Your task to perform on an android device: What is the news today? Image 0: 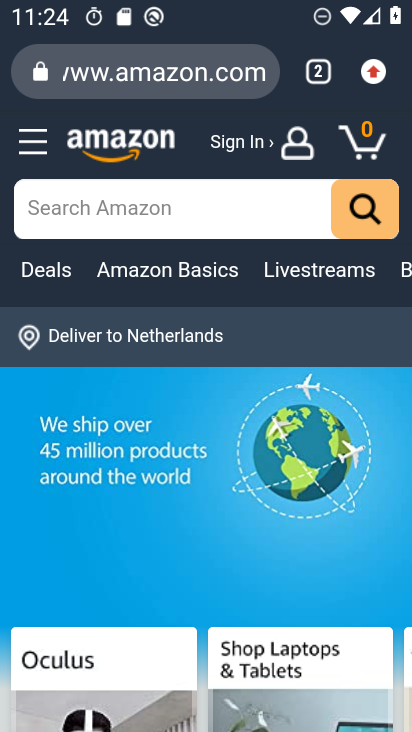
Step 0: press home button
Your task to perform on an android device: What is the news today? Image 1: 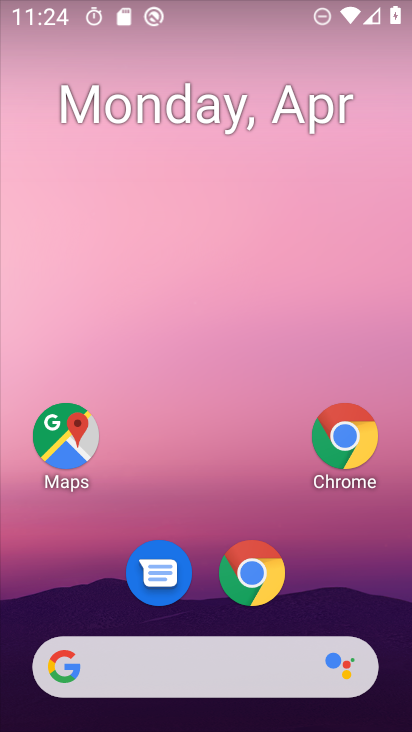
Step 1: click (261, 565)
Your task to perform on an android device: What is the news today? Image 2: 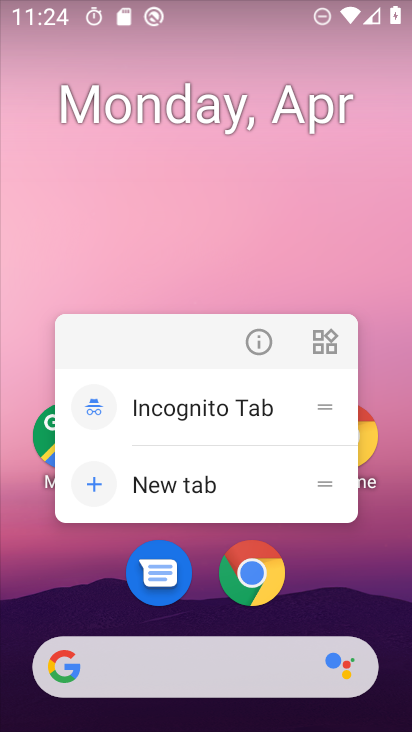
Step 2: click (261, 565)
Your task to perform on an android device: What is the news today? Image 3: 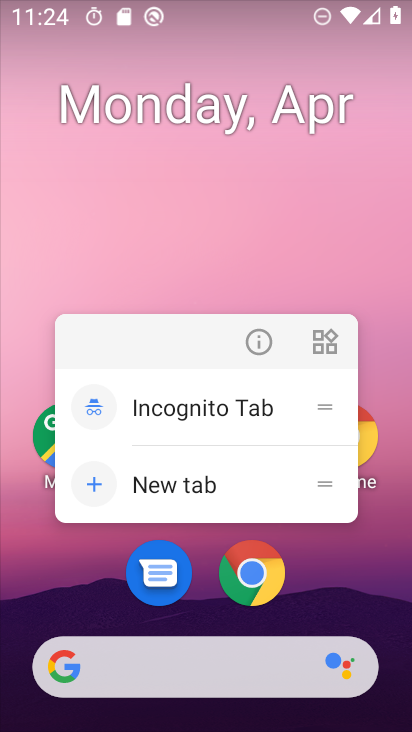
Step 3: click (262, 565)
Your task to perform on an android device: What is the news today? Image 4: 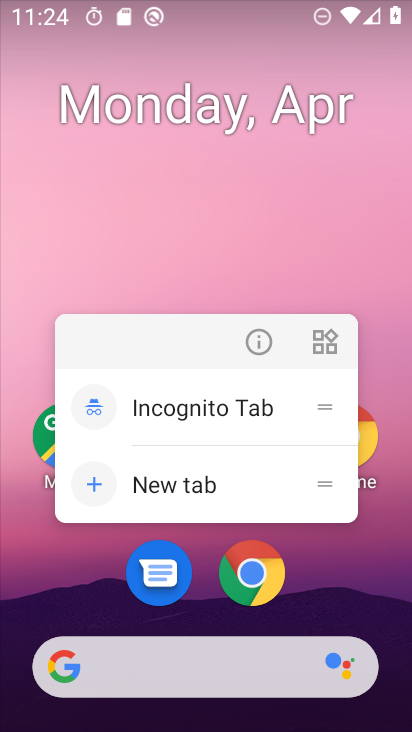
Step 4: click (263, 565)
Your task to perform on an android device: What is the news today? Image 5: 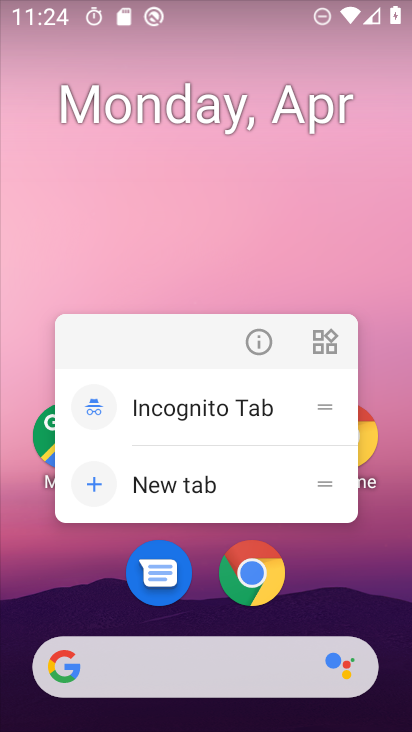
Step 5: click (264, 566)
Your task to perform on an android device: What is the news today? Image 6: 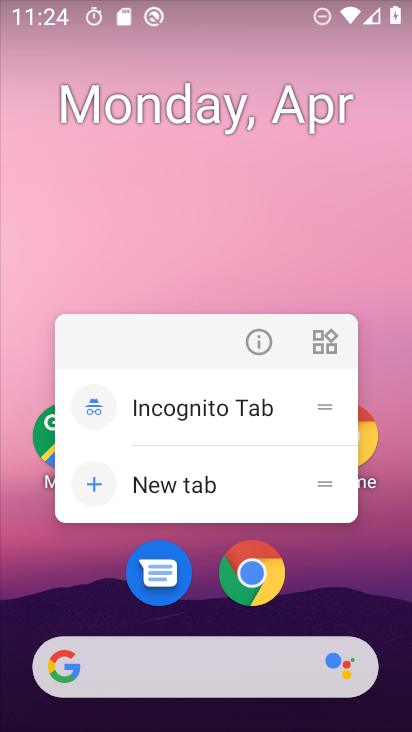
Step 6: click (264, 566)
Your task to perform on an android device: What is the news today? Image 7: 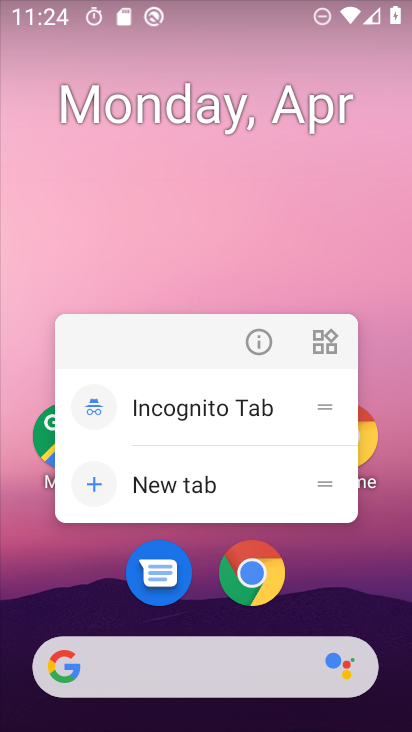
Step 7: click (264, 566)
Your task to perform on an android device: What is the news today? Image 8: 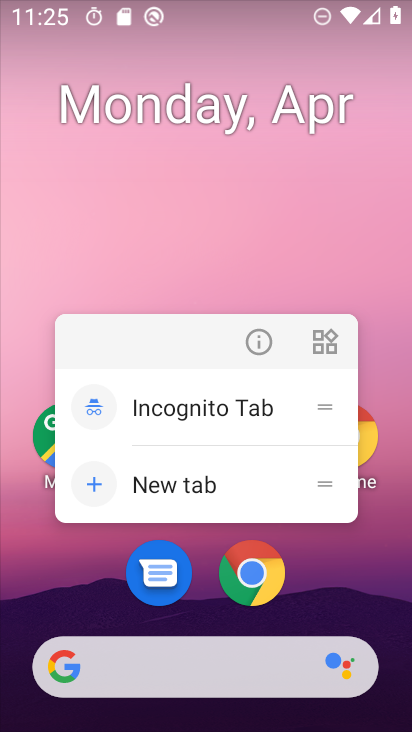
Step 8: click (274, 563)
Your task to perform on an android device: What is the news today? Image 9: 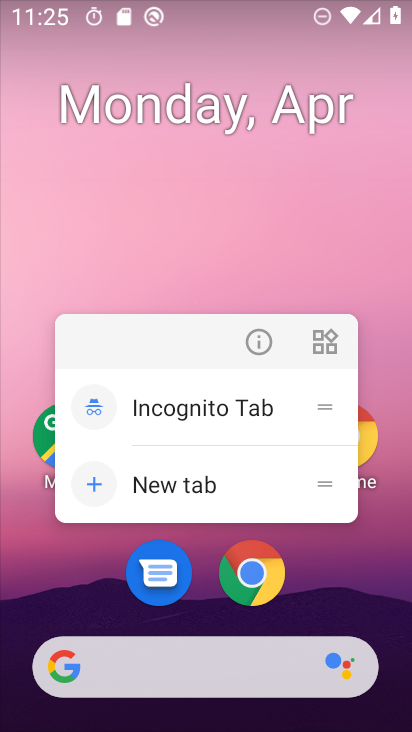
Step 9: click (248, 554)
Your task to perform on an android device: What is the news today? Image 10: 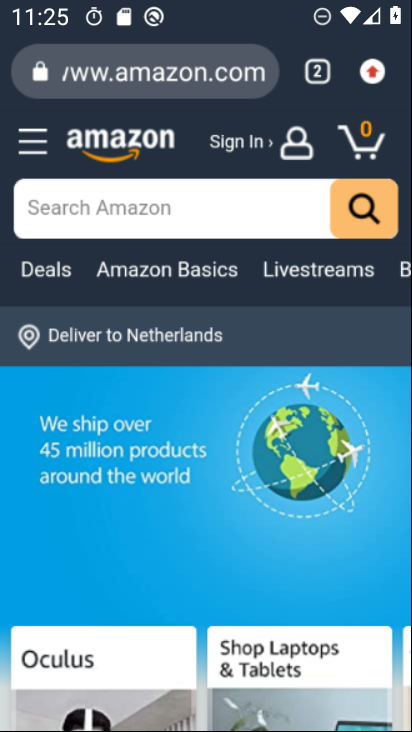
Step 10: click (248, 554)
Your task to perform on an android device: What is the news today? Image 11: 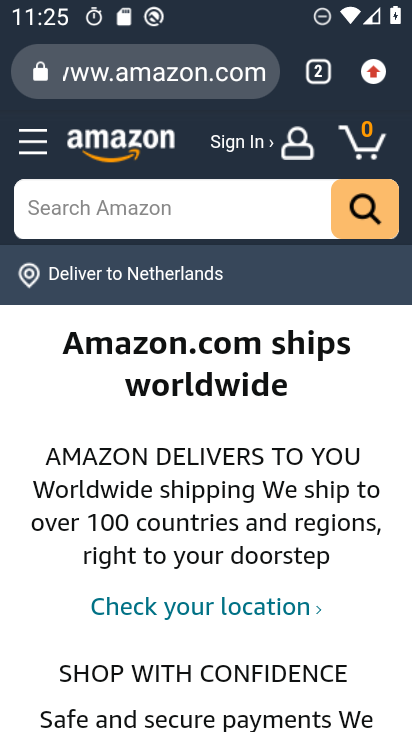
Step 11: click (375, 76)
Your task to perform on an android device: What is the news today? Image 12: 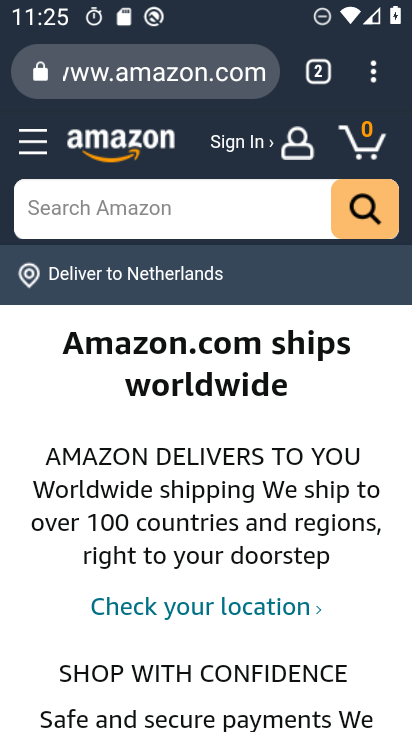
Step 12: click (375, 76)
Your task to perform on an android device: What is the news today? Image 13: 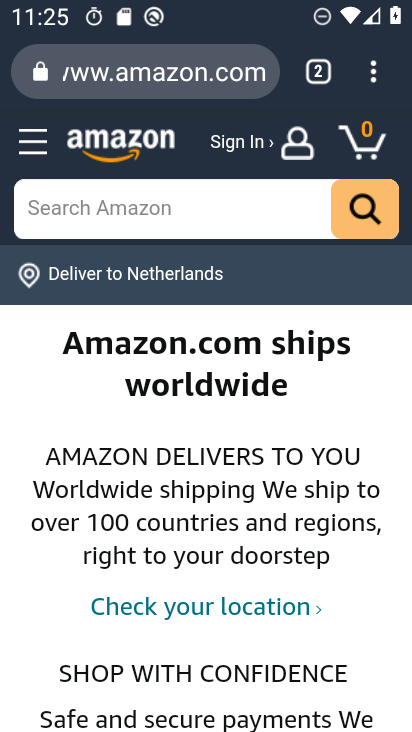
Step 13: click (375, 76)
Your task to perform on an android device: What is the news today? Image 14: 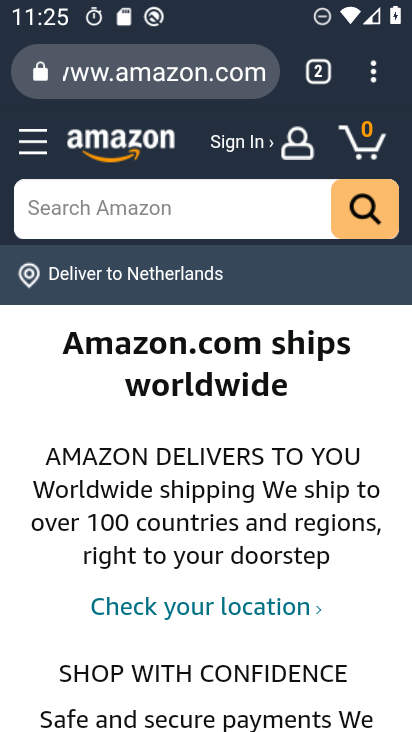
Step 14: task complete